Your task to perform on an android device: Go to network settings Image 0: 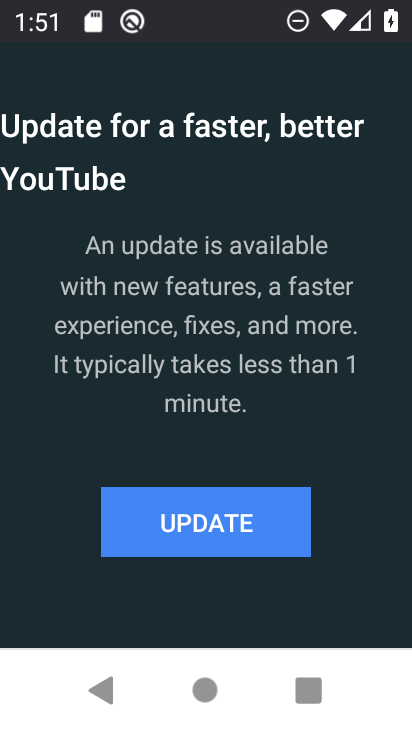
Step 0: press home button
Your task to perform on an android device: Go to network settings Image 1: 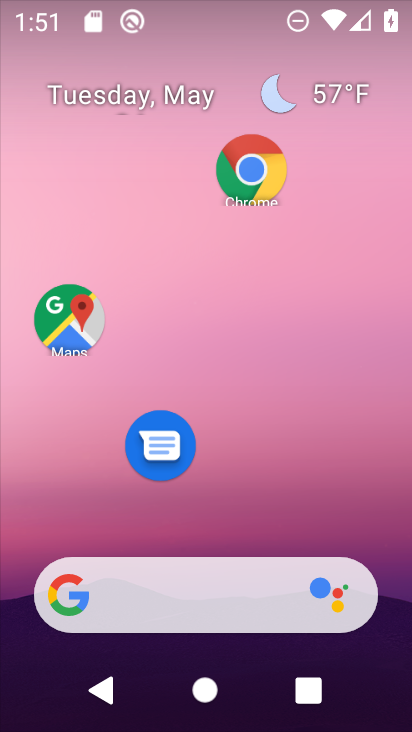
Step 1: drag from (234, 725) to (232, 153)
Your task to perform on an android device: Go to network settings Image 2: 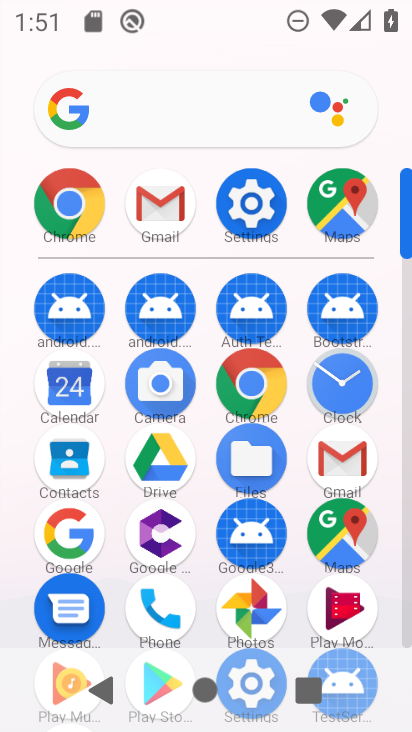
Step 2: click (254, 204)
Your task to perform on an android device: Go to network settings Image 3: 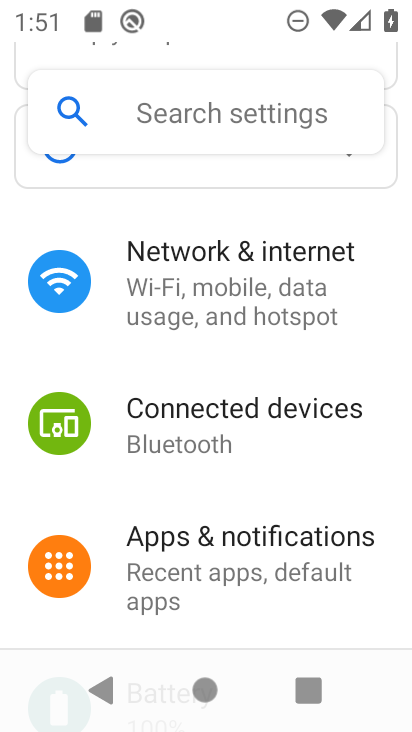
Step 3: click (228, 275)
Your task to perform on an android device: Go to network settings Image 4: 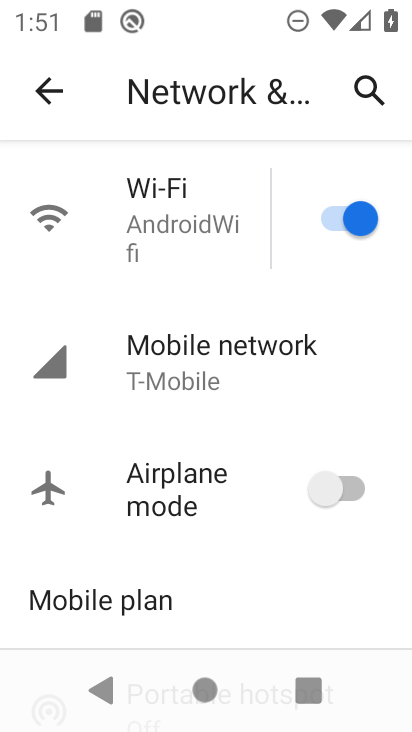
Step 4: click (179, 347)
Your task to perform on an android device: Go to network settings Image 5: 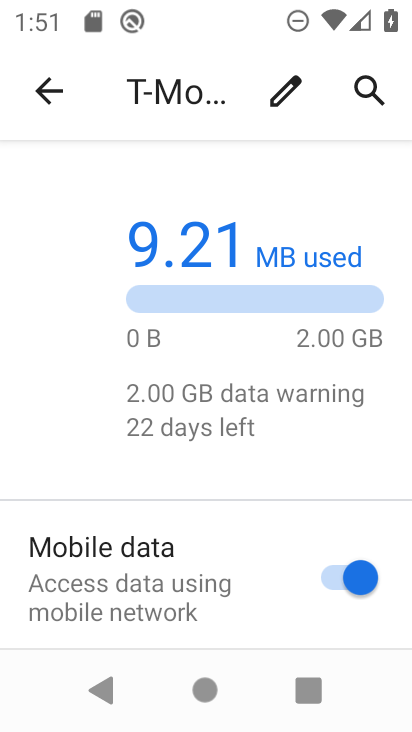
Step 5: task complete